Your task to perform on an android device: Go to Wikipedia Image 0: 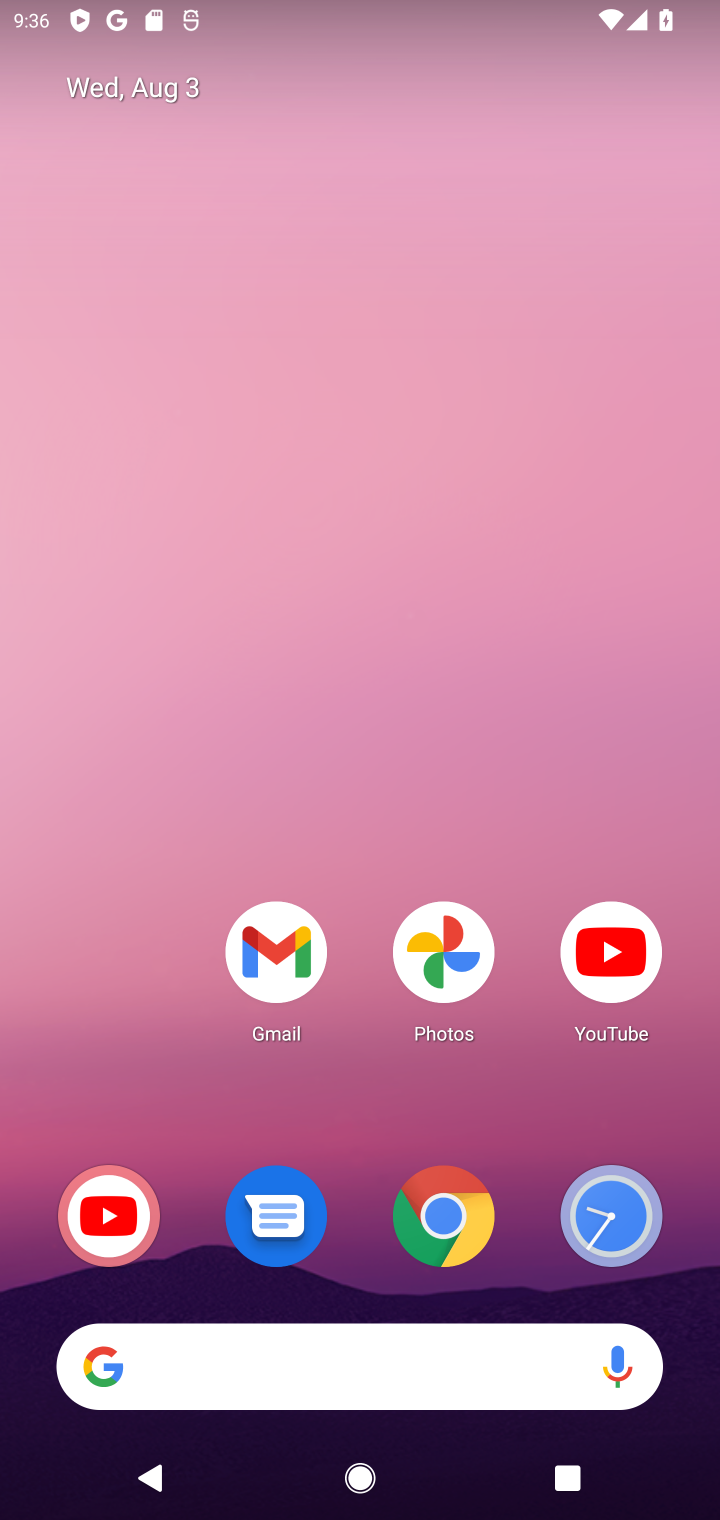
Step 0: click (453, 1214)
Your task to perform on an android device: Go to Wikipedia Image 1: 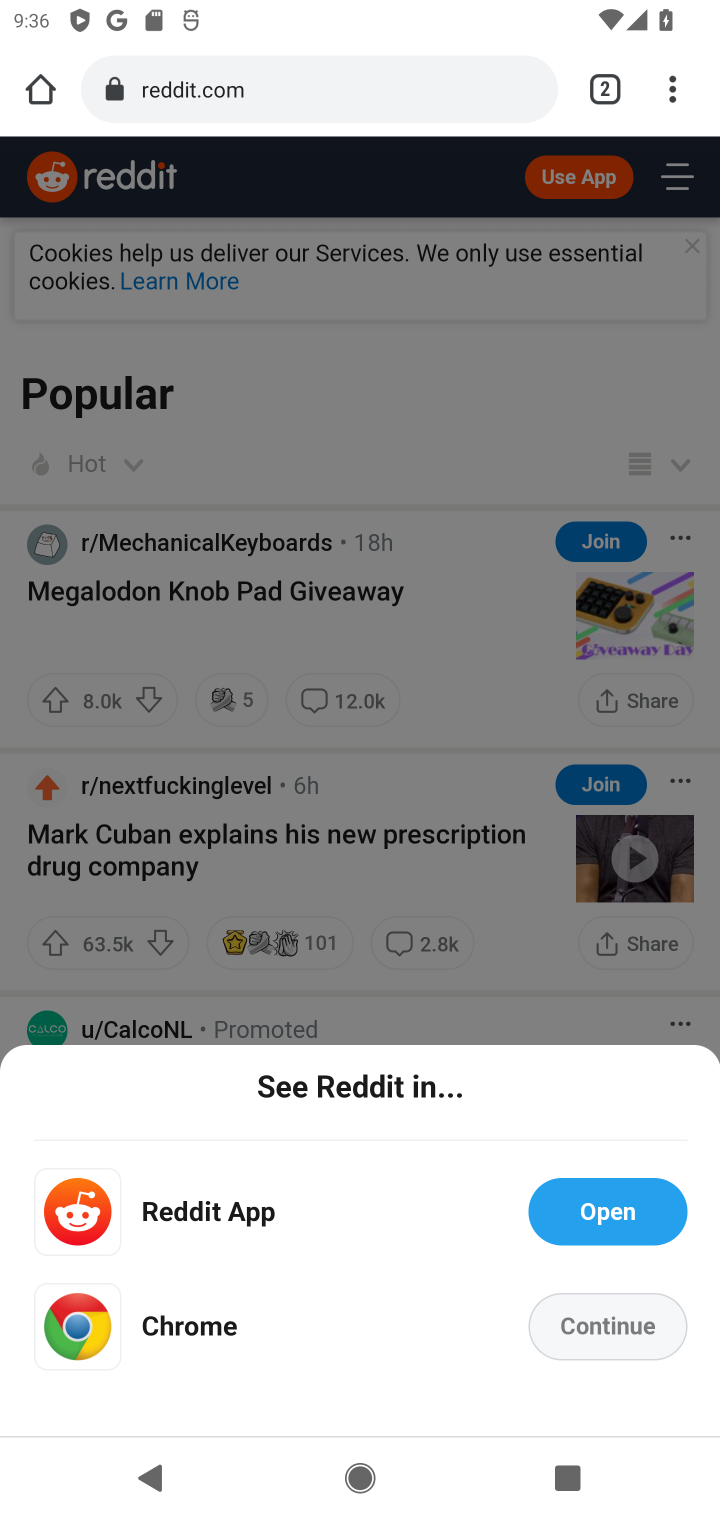
Step 1: click (612, 78)
Your task to perform on an android device: Go to Wikipedia Image 2: 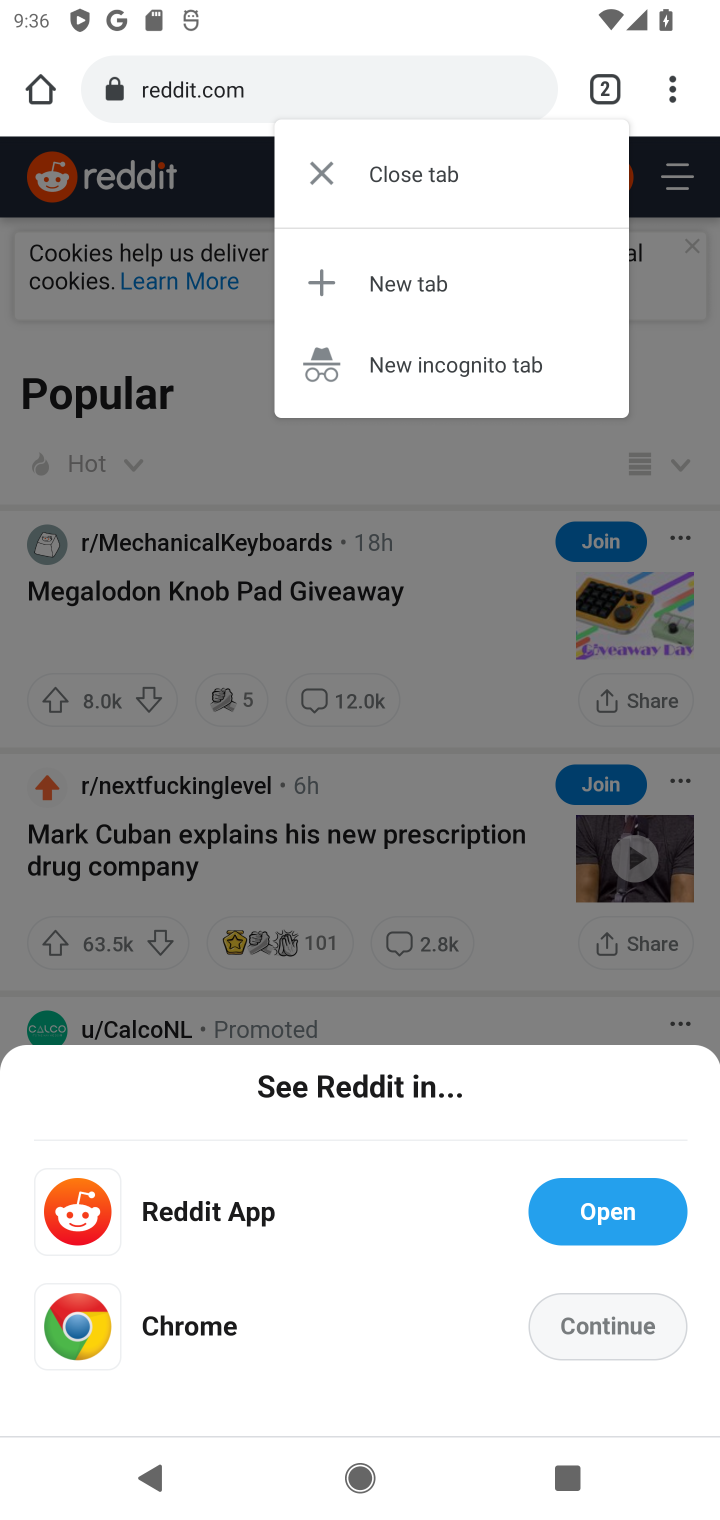
Step 2: click (611, 78)
Your task to perform on an android device: Go to Wikipedia Image 3: 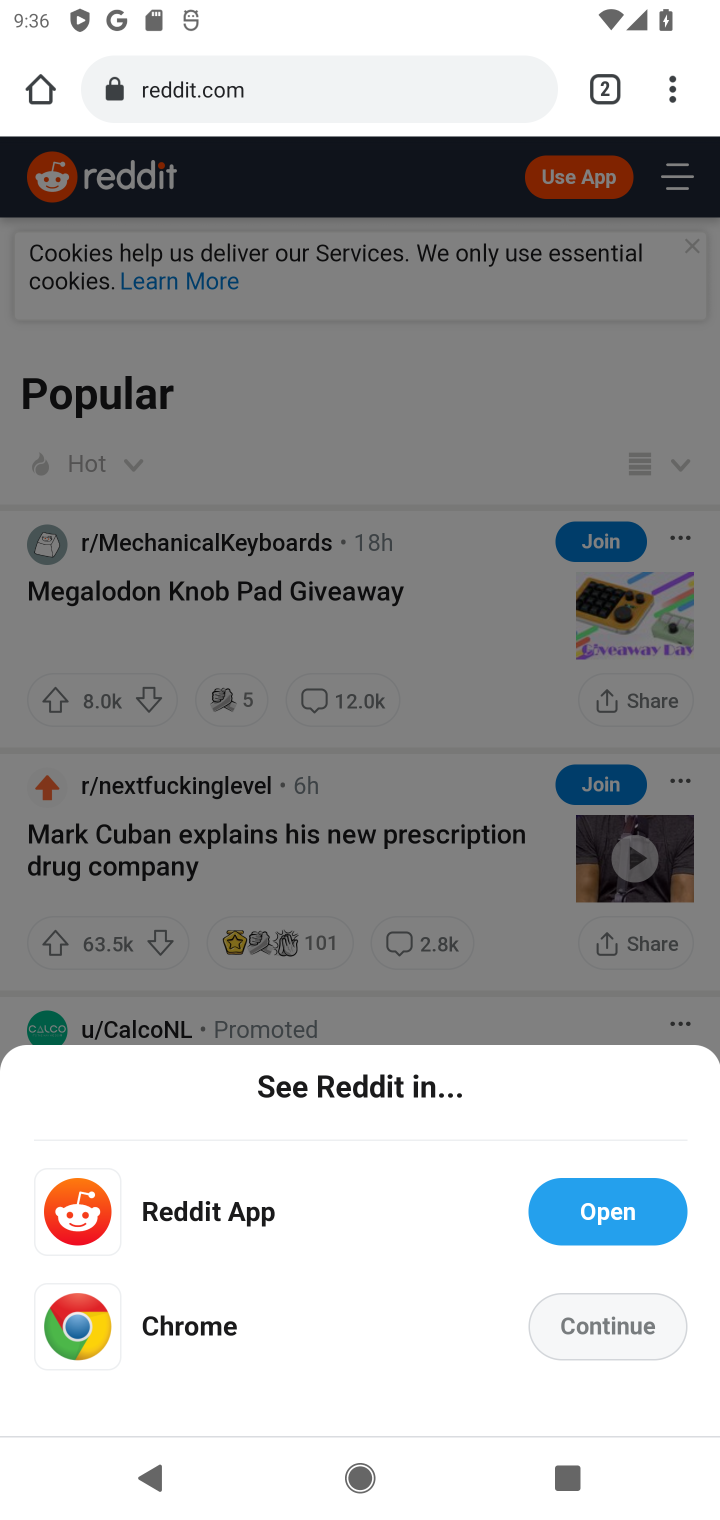
Step 3: click (607, 90)
Your task to perform on an android device: Go to Wikipedia Image 4: 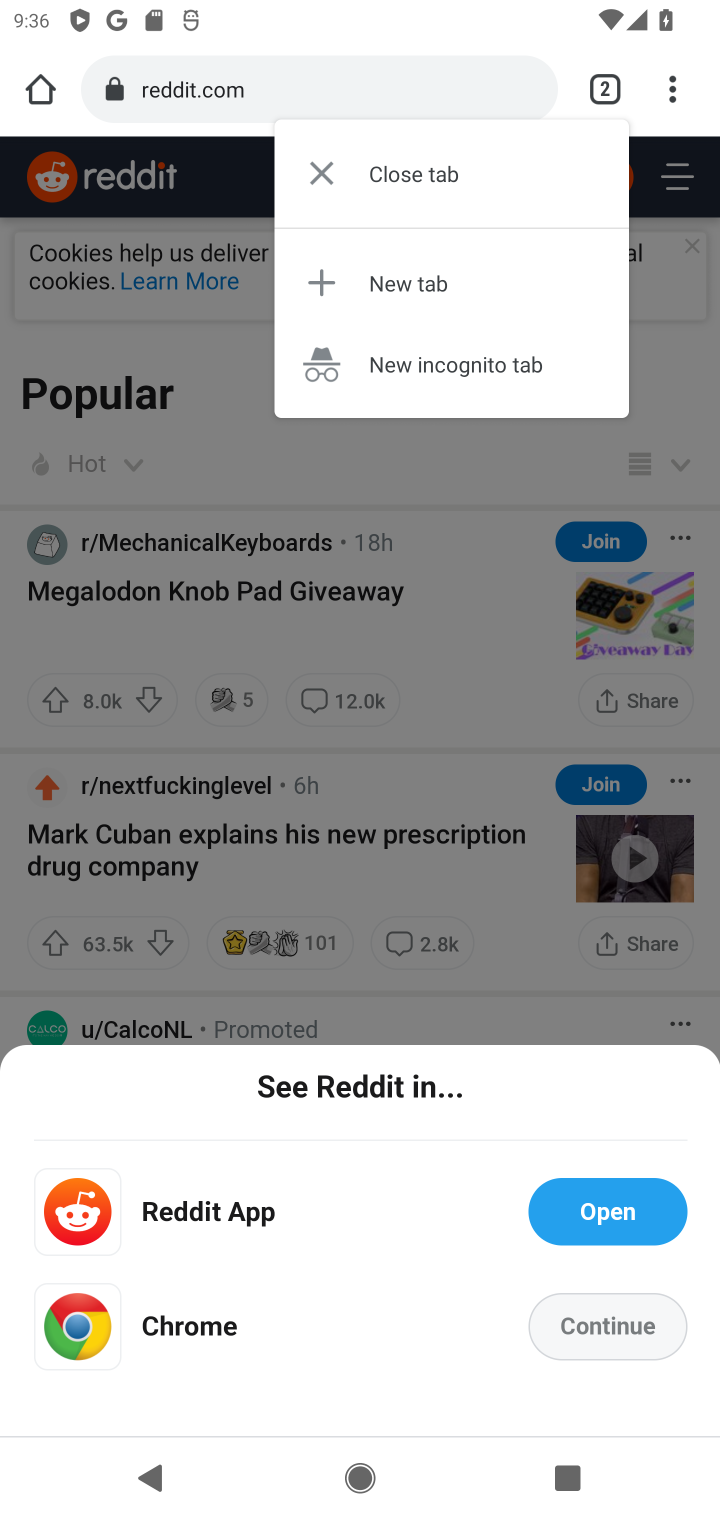
Step 4: click (417, 256)
Your task to perform on an android device: Go to Wikipedia Image 5: 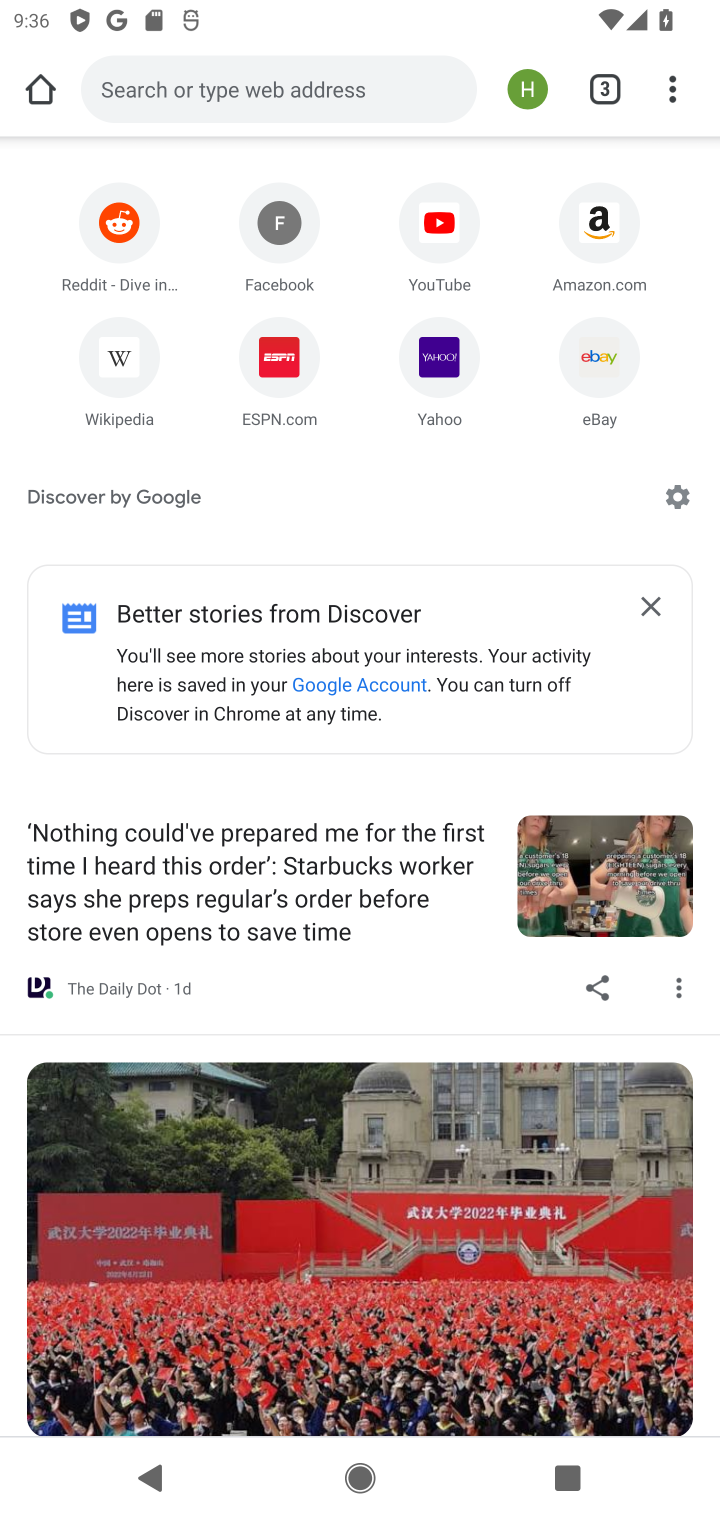
Step 5: click (99, 361)
Your task to perform on an android device: Go to Wikipedia Image 6: 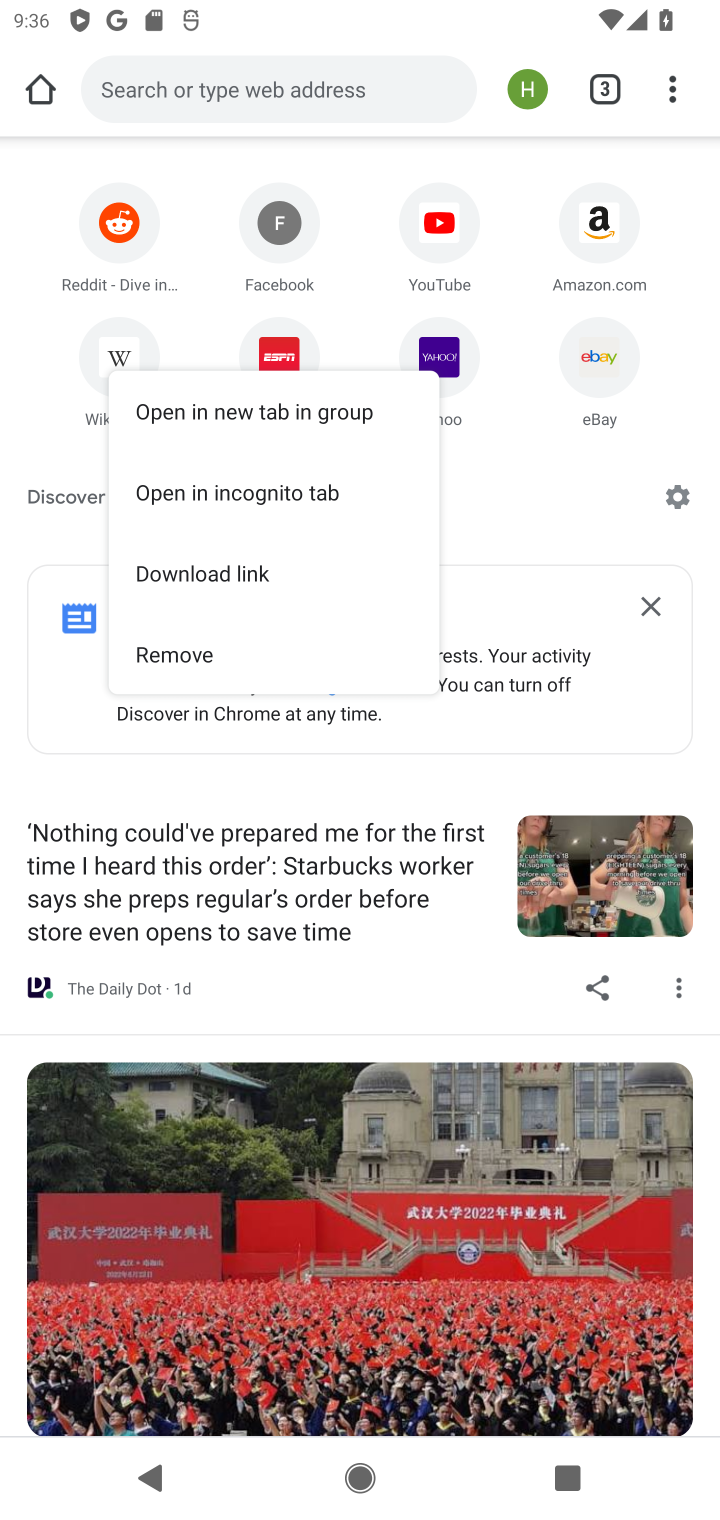
Step 6: click (111, 343)
Your task to perform on an android device: Go to Wikipedia Image 7: 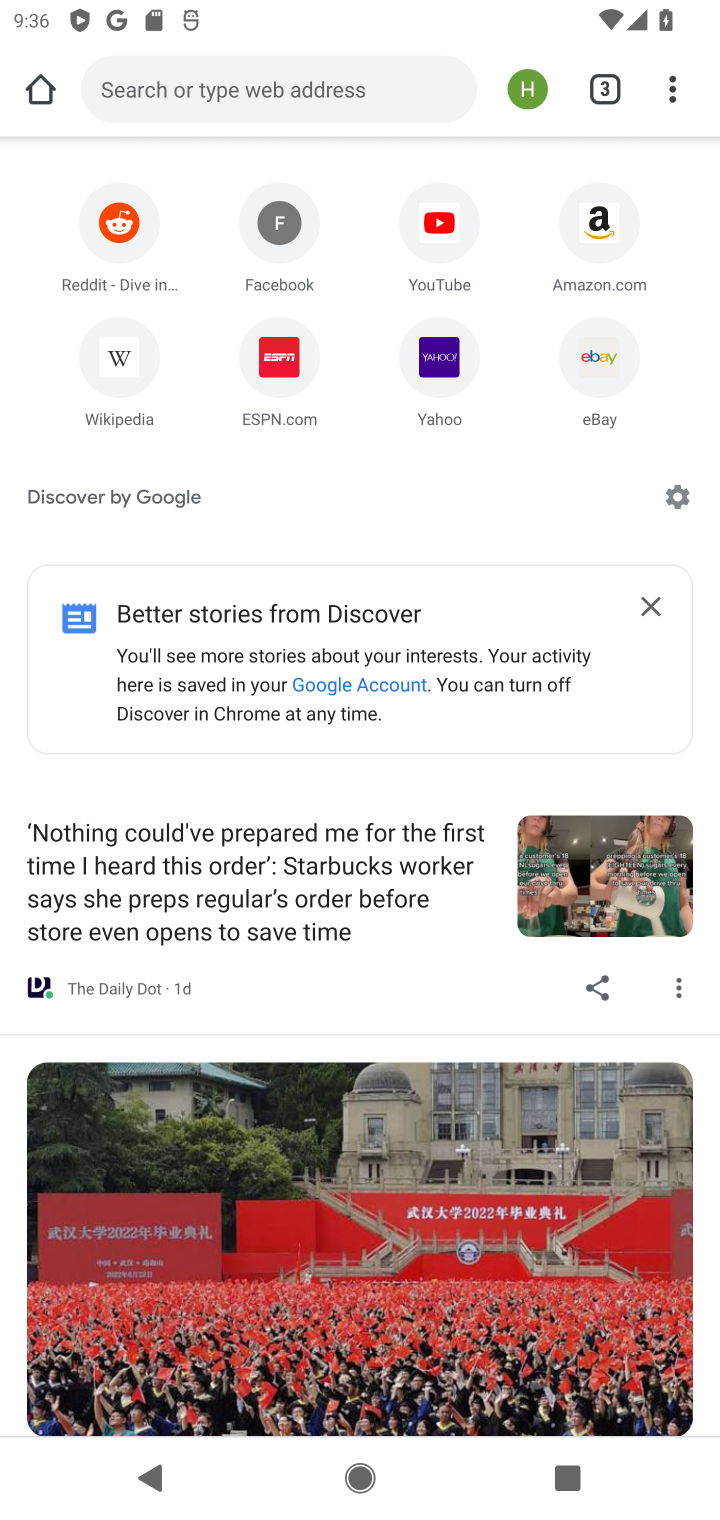
Step 7: click (109, 356)
Your task to perform on an android device: Go to Wikipedia Image 8: 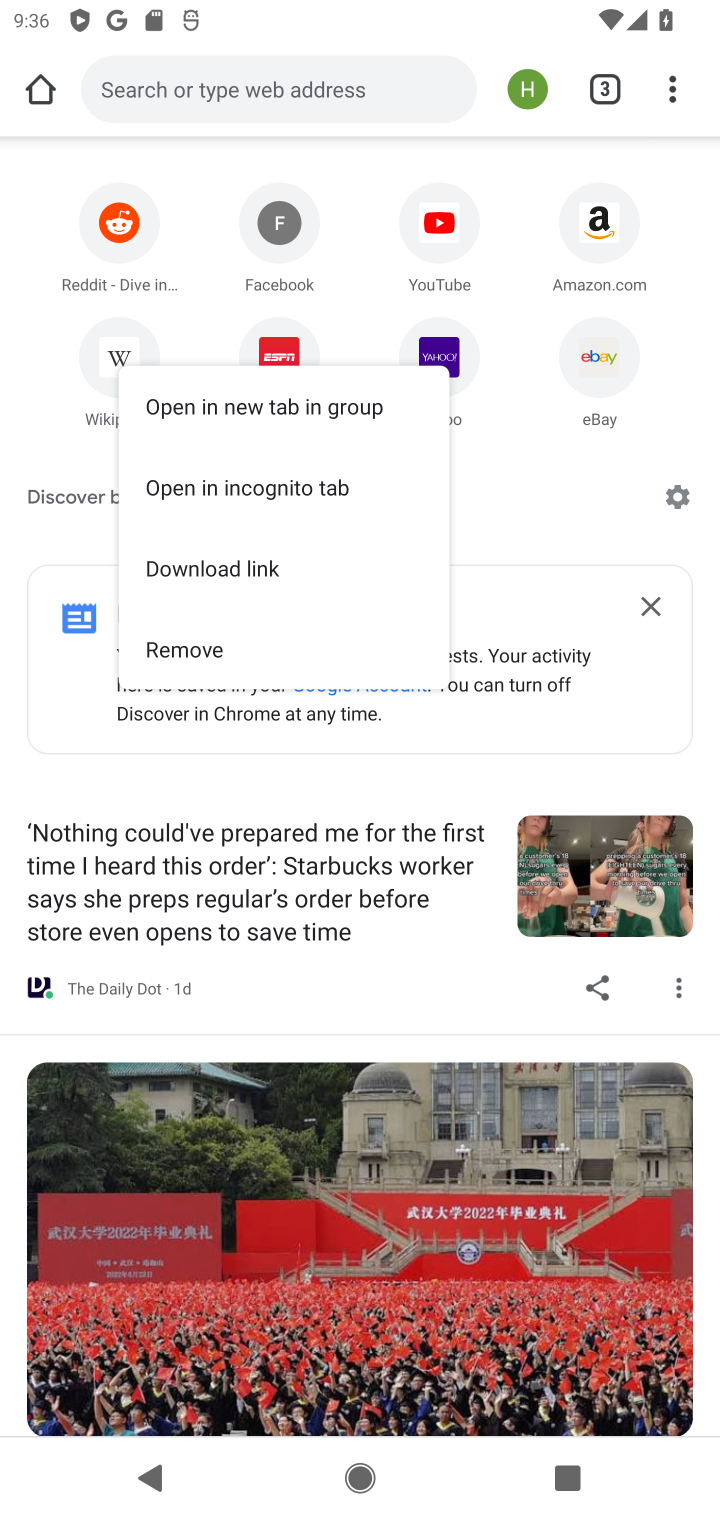
Step 8: task complete